Your task to perform on an android device: create a new album in the google photos Image 0: 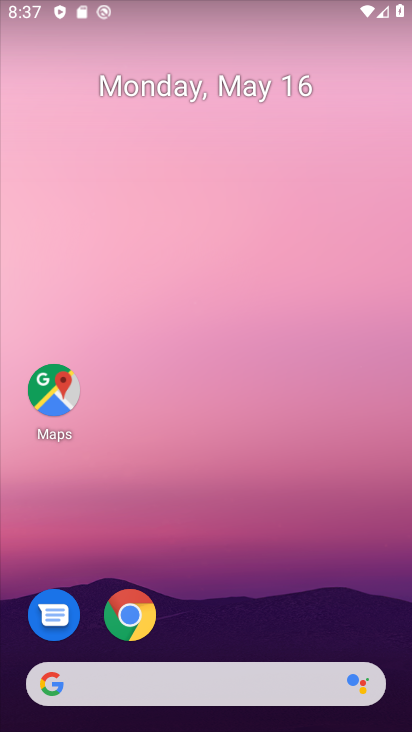
Step 0: drag from (161, 648) to (234, 385)
Your task to perform on an android device: create a new album in the google photos Image 1: 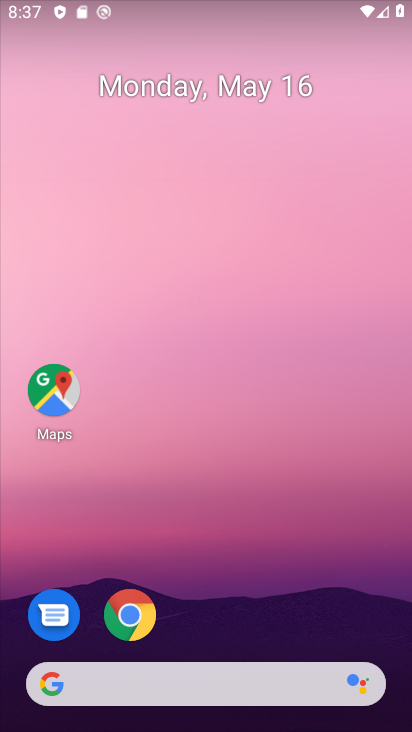
Step 1: drag from (188, 639) to (314, 94)
Your task to perform on an android device: create a new album in the google photos Image 2: 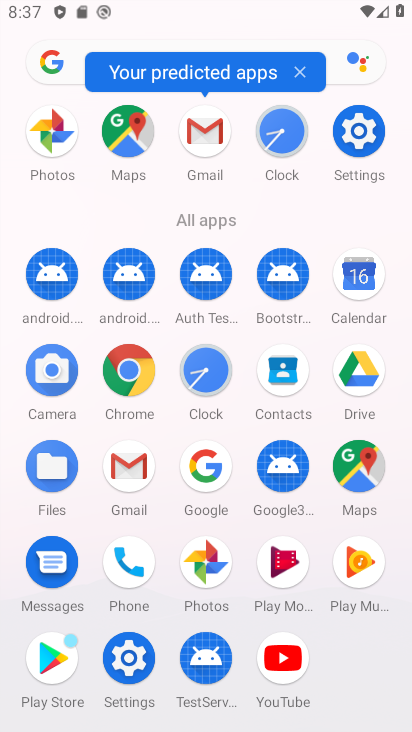
Step 2: click (202, 585)
Your task to perform on an android device: create a new album in the google photos Image 3: 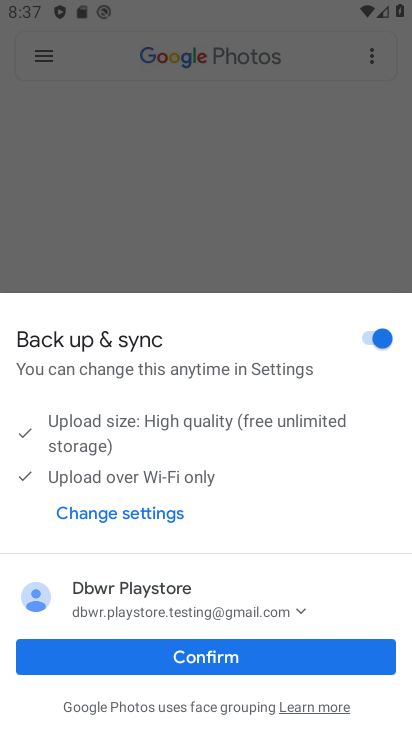
Step 3: click (221, 667)
Your task to perform on an android device: create a new album in the google photos Image 4: 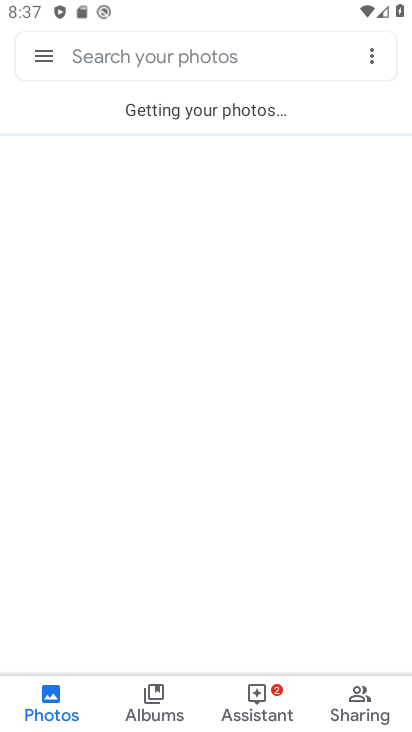
Step 4: click (361, 59)
Your task to perform on an android device: create a new album in the google photos Image 5: 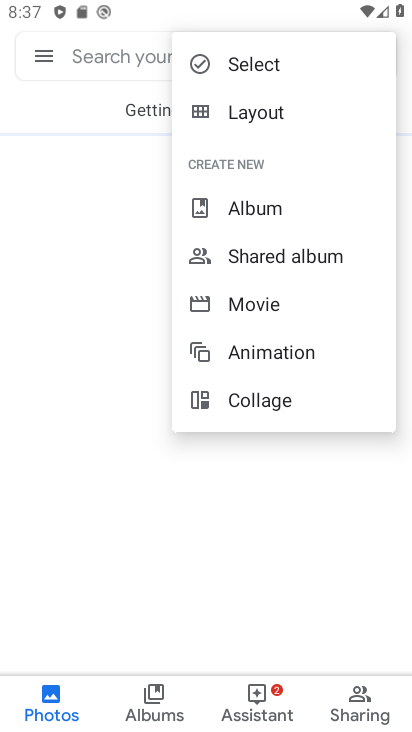
Step 5: click (280, 210)
Your task to perform on an android device: create a new album in the google photos Image 6: 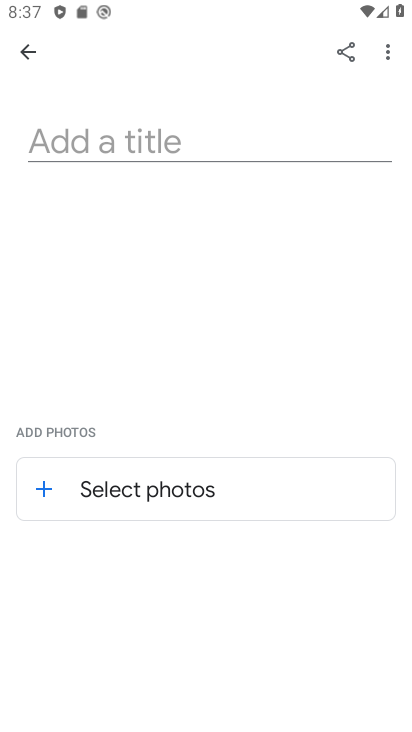
Step 6: click (153, 162)
Your task to perform on an android device: create a new album in the google photos Image 7: 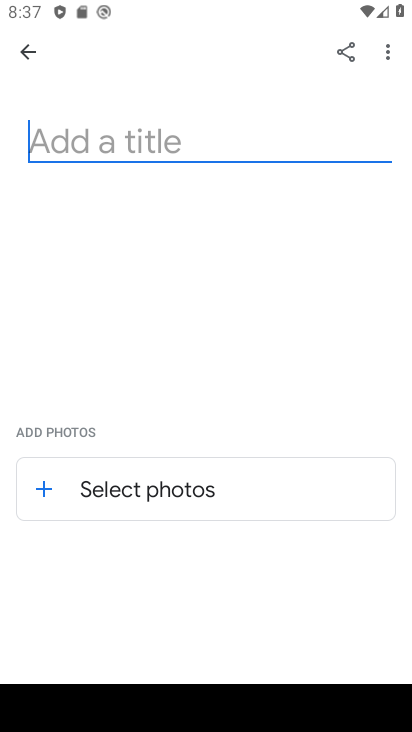
Step 7: type "xxxxxxxx"
Your task to perform on an android device: create a new album in the google photos Image 8: 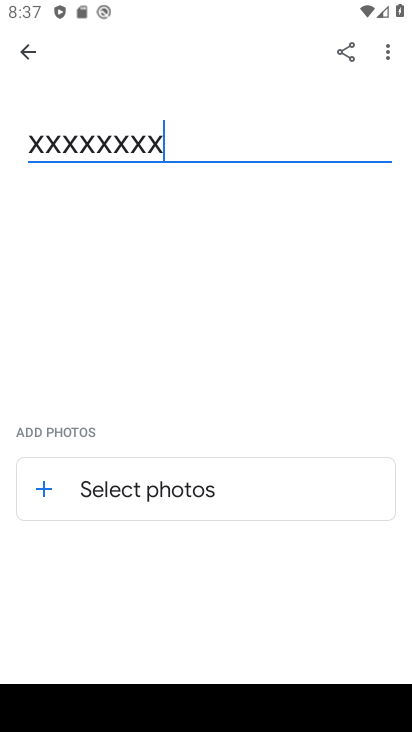
Step 8: click (143, 491)
Your task to perform on an android device: create a new album in the google photos Image 9: 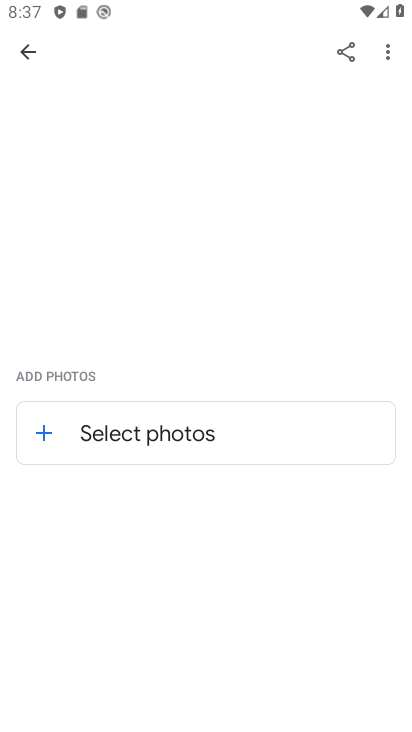
Step 9: click (168, 451)
Your task to perform on an android device: create a new album in the google photos Image 10: 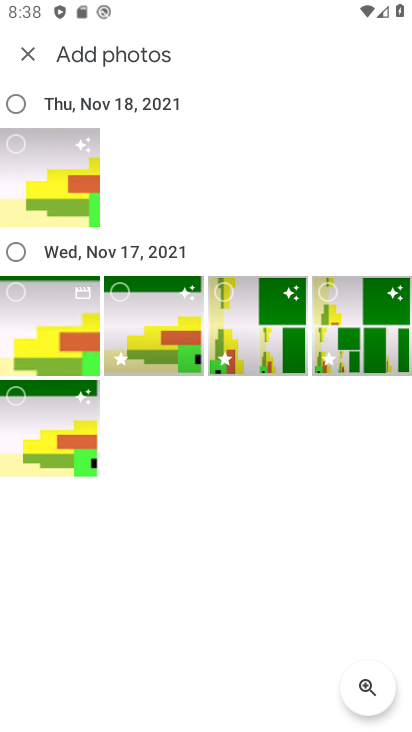
Step 10: click (15, 104)
Your task to perform on an android device: create a new album in the google photos Image 11: 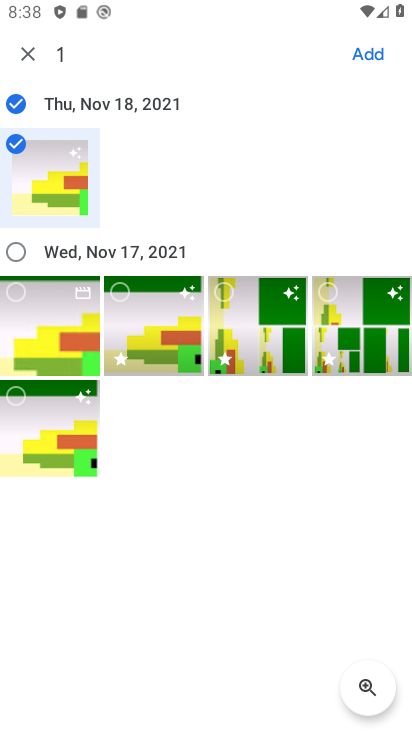
Step 11: click (15, 252)
Your task to perform on an android device: create a new album in the google photos Image 12: 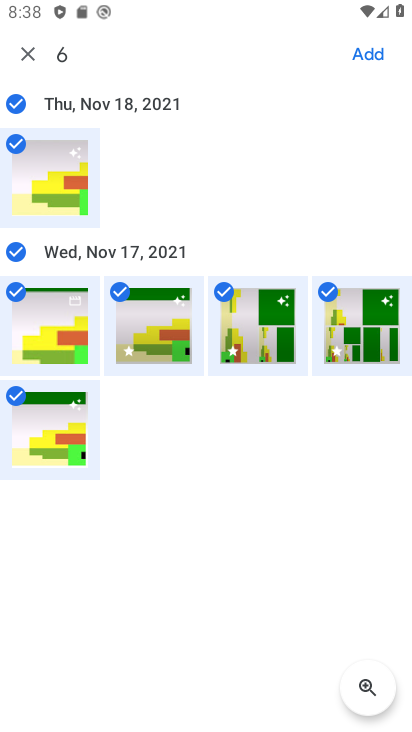
Step 12: click (362, 54)
Your task to perform on an android device: create a new album in the google photos Image 13: 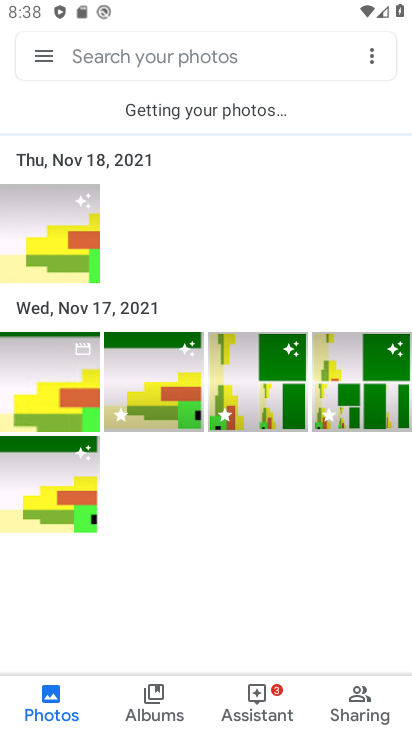
Step 13: click (387, 60)
Your task to perform on an android device: create a new album in the google photos Image 14: 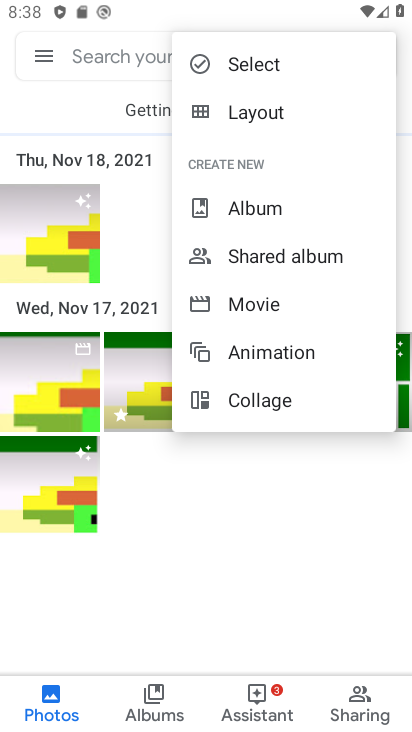
Step 14: click (278, 224)
Your task to perform on an android device: create a new album in the google photos Image 15: 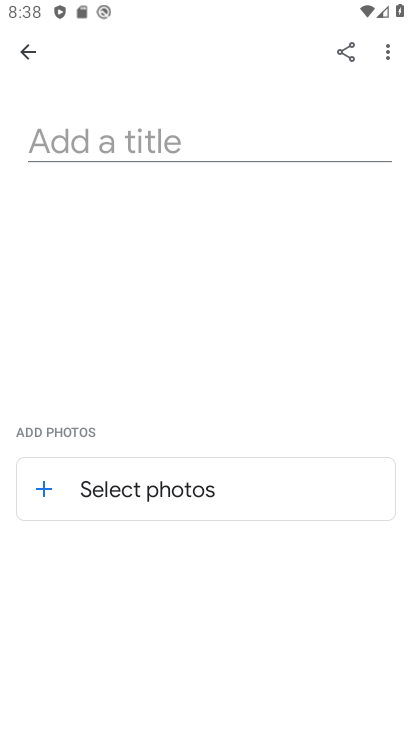
Step 15: click (165, 132)
Your task to perform on an android device: create a new album in the google photos Image 16: 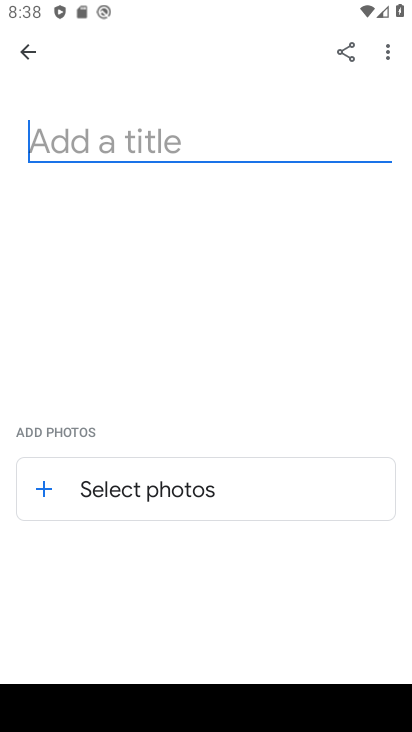
Step 16: type "xxxxxxxx"
Your task to perform on an android device: create a new album in the google photos Image 17: 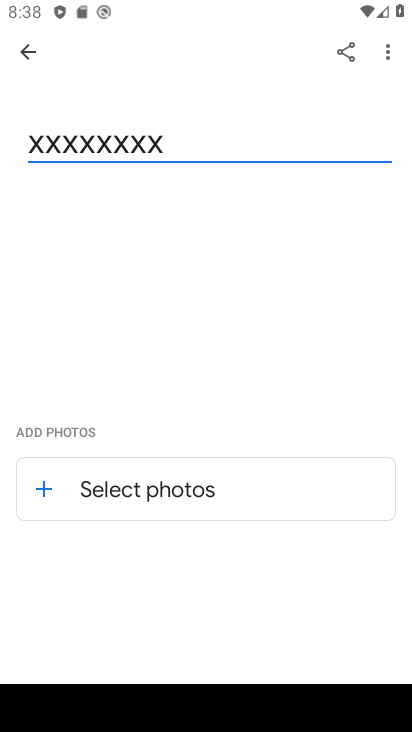
Step 17: click (205, 489)
Your task to perform on an android device: create a new album in the google photos Image 18: 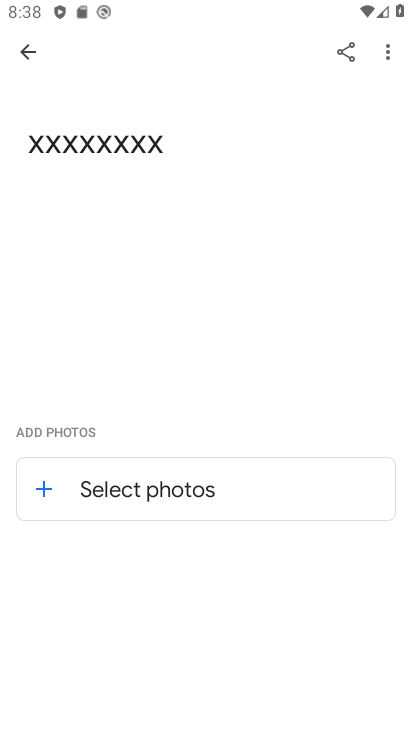
Step 18: click (206, 488)
Your task to perform on an android device: create a new album in the google photos Image 19: 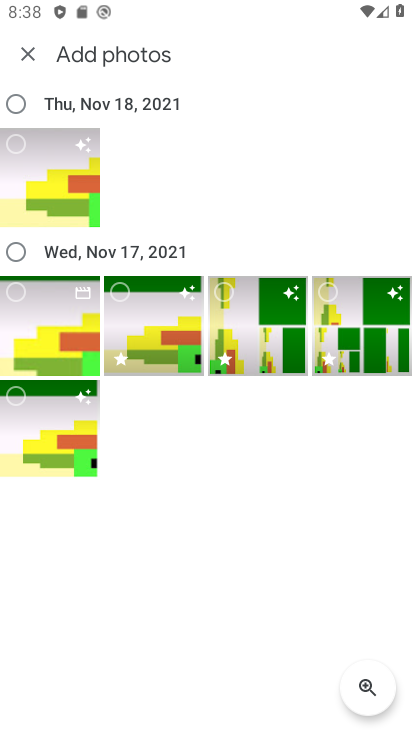
Step 19: click (21, 100)
Your task to perform on an android device: create a new album in the google photos Image 20: 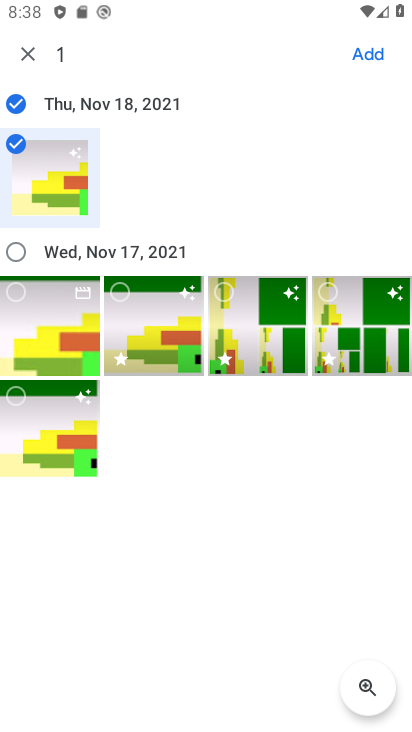
Step 20: click (14, 246)
Your task to perform on an android device: create a new album in the google photos Image 21: 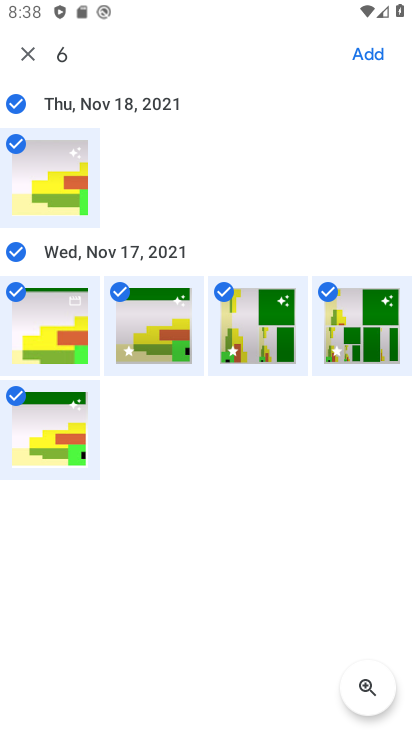
Step 21: click (383, 53)
Your task to perform on an android device: create a new album in the google photos Image 22: 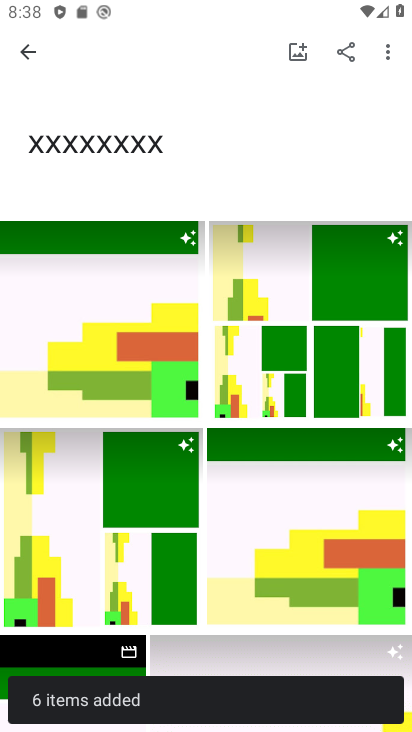
Step 22: task complete